Your task to perform on an android device: Search for flights from Barcelona to Boston Image 0: 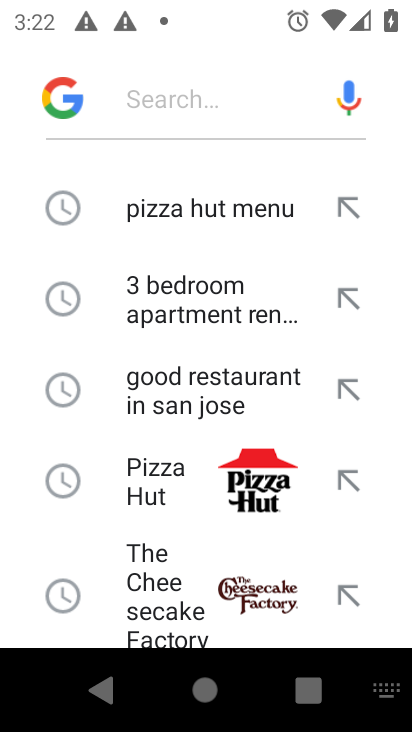
Step 0: type "Barcelona to Boston flight"
Your task to perform on an android device: Search for flights from Barcelona to Boston Image 1: 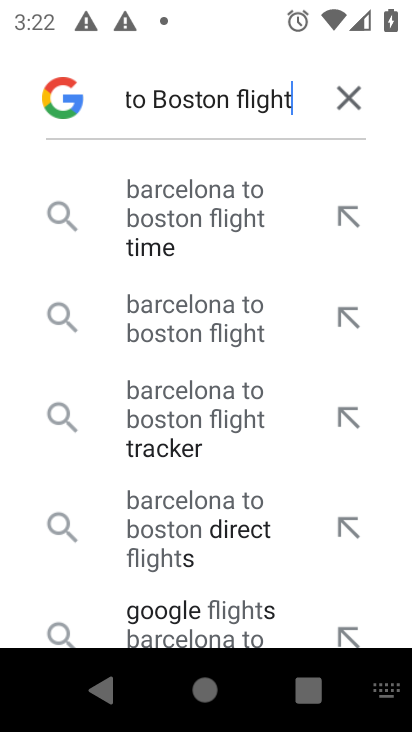
Step 1: type ""
Your task to perform on an android device: Search for flights from Barcelona to Boston Image 2: 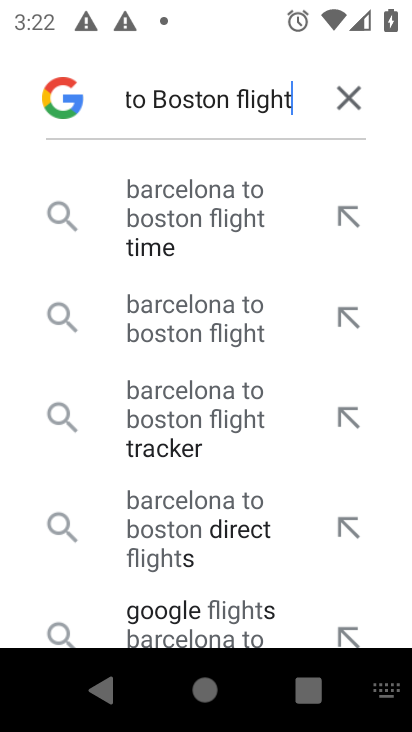
Step 2: click (175, 226)
Your task to perform on an android device: Search for flights from Barcelona to Boston Image 3: 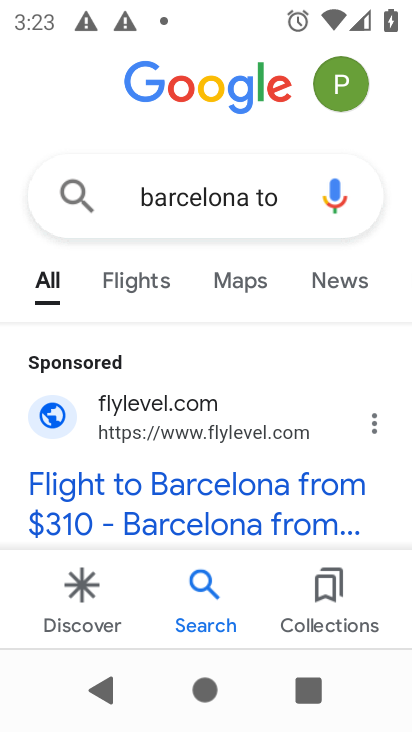
Step 3: click (136, 281)
Your task to perform on an android device: Search for flights from Barcelona to Boston Image 4: 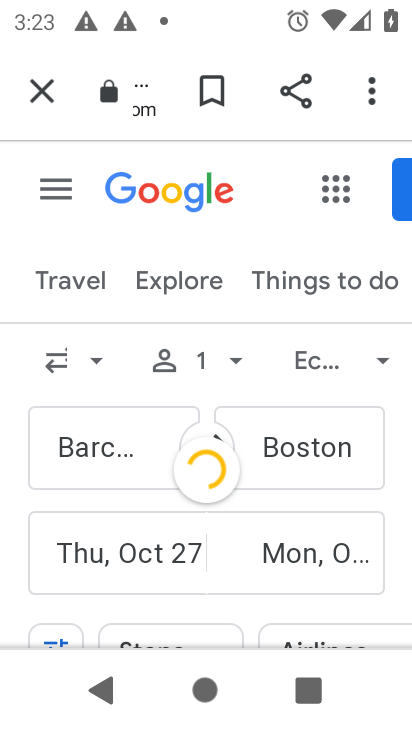
Step 4: task complete